Your task to perform on an android device: turn pop-ups on in chrome Image 0: 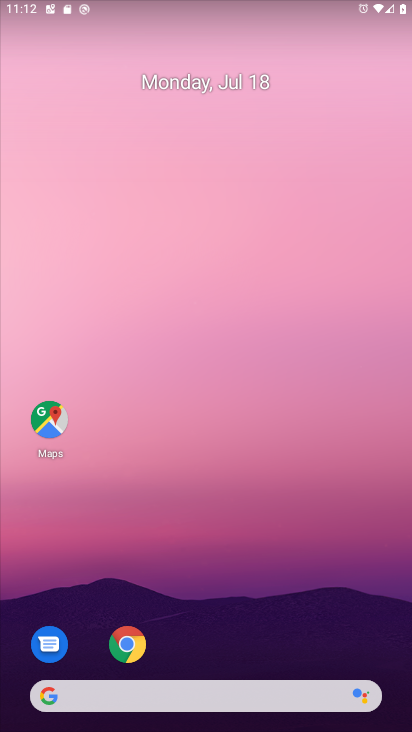
Step 0: click (132, 656)
Your task to perform on an android device: turn pop-ups on in chrome Image 1: 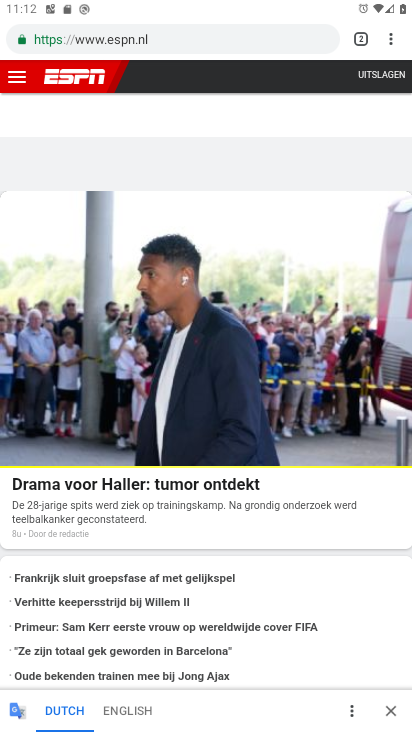
Step 1: click (390, 36)
Your task to perform on an android device: turn pop-ups on in chrome Image 2: 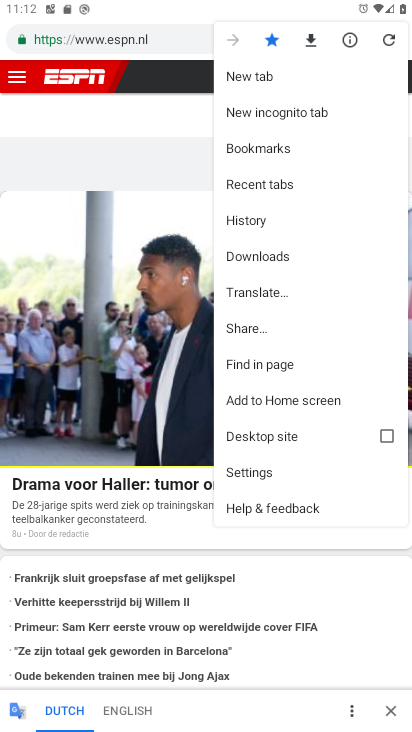
Step 2: click (235, 472)
Your task to perform on an android device: turn pop-ups on in chrome Image 3: 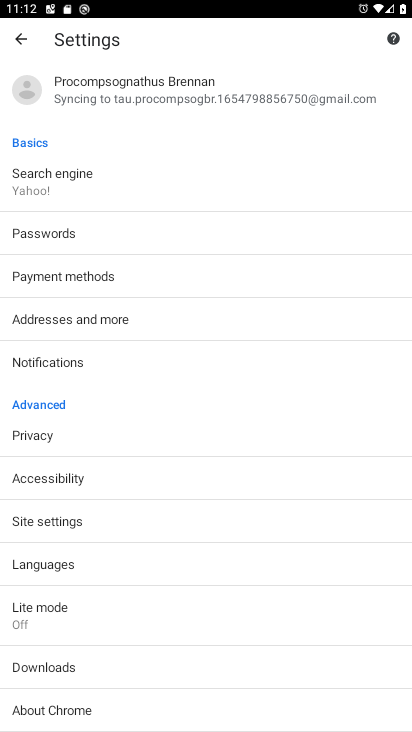
Step 3: task complete